Your task to perform on an android device: Open Google Chrome and click the shortcut for Amazon.com Image 0: 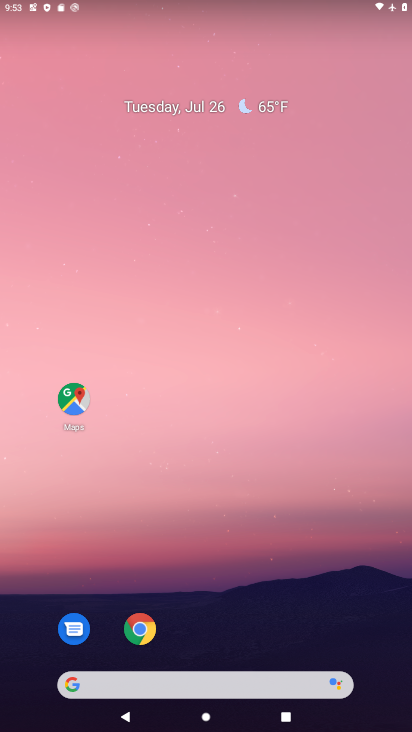
Step 0: drag from (335, 591) to (293, 11)
Your task to perform on an android device: Open Google Chrome and click the shortcut for Amazon.com Image 1: 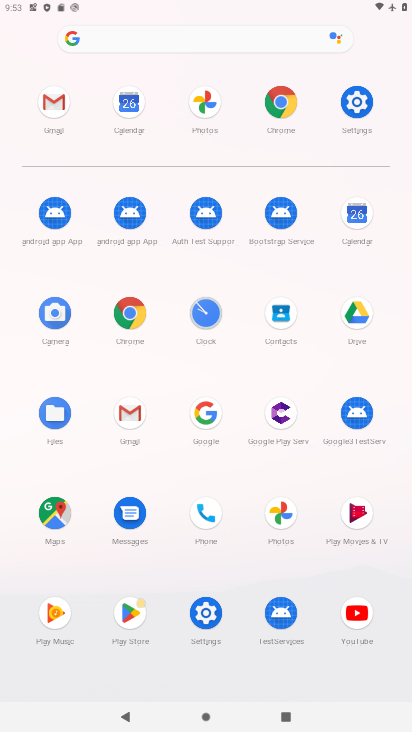
Step 1: click (274, 99)
Your task to perform on an android device: Open Google Chrome and click the shortcut for Amazon.com Image 2: 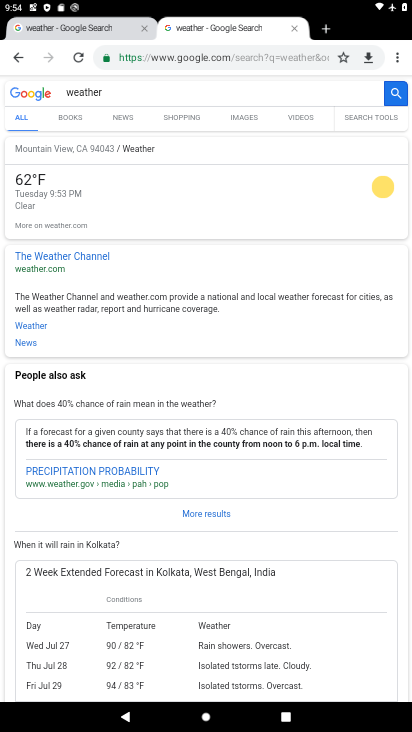
Step 2: click (325, 29)
Your task to perform on an android device: Open Google Chrome and click the shortcut for Amazon.com Image 3: 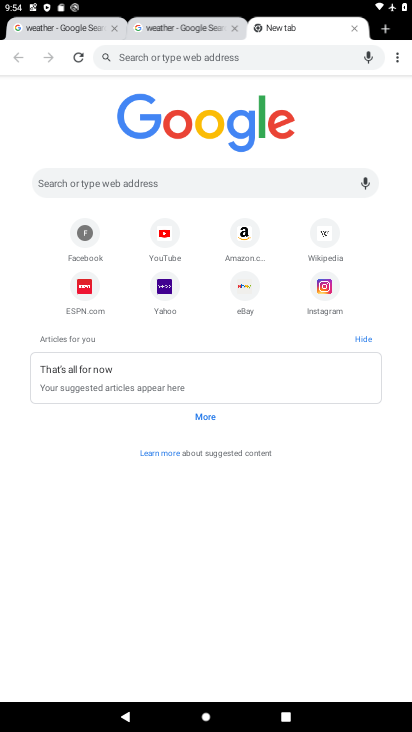
Step 3: click (255, 233)
Your task to perform on an android device: Open Google Chrome and click the shortcut for Amazon.com Image 4: 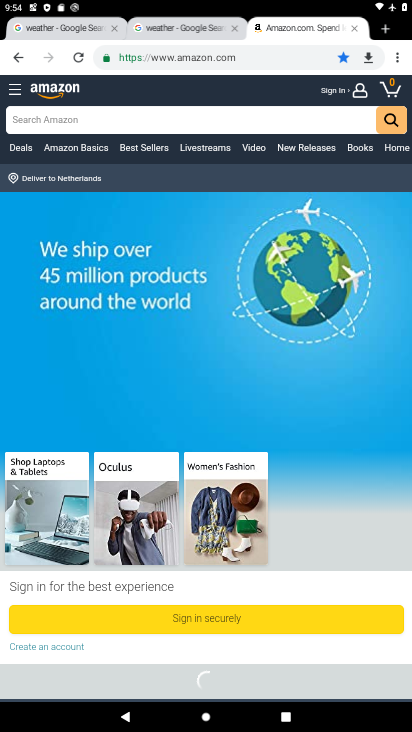
Step 4: task complete